Your task to perform on an android device: open chrome and create a bookmark for the current page Image 0: 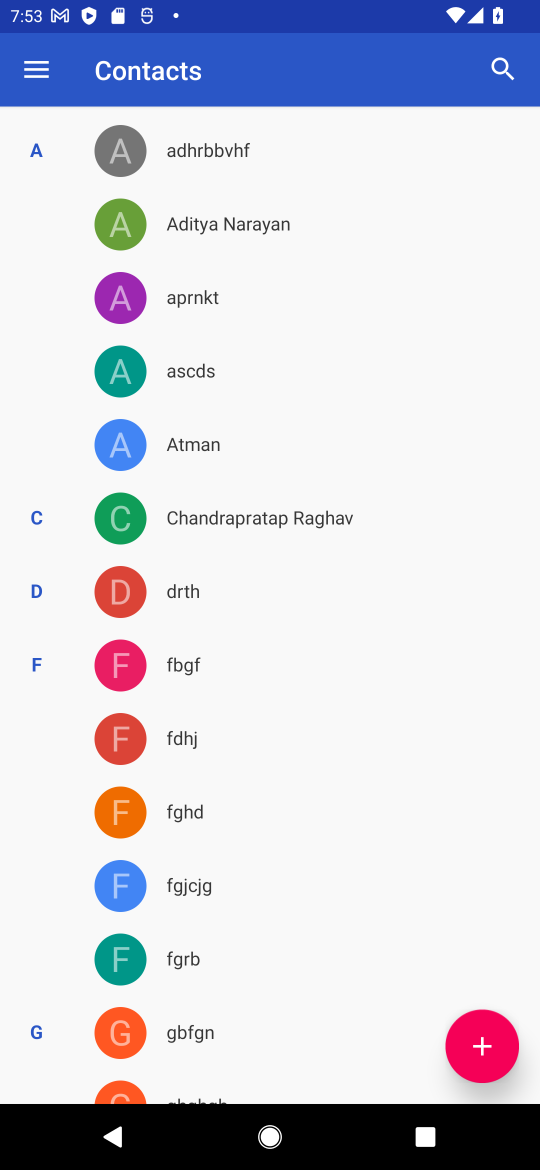
Step 0: press home button
Your task to perform on an android device: open chrome and create a bookmark for the current page Image 1: 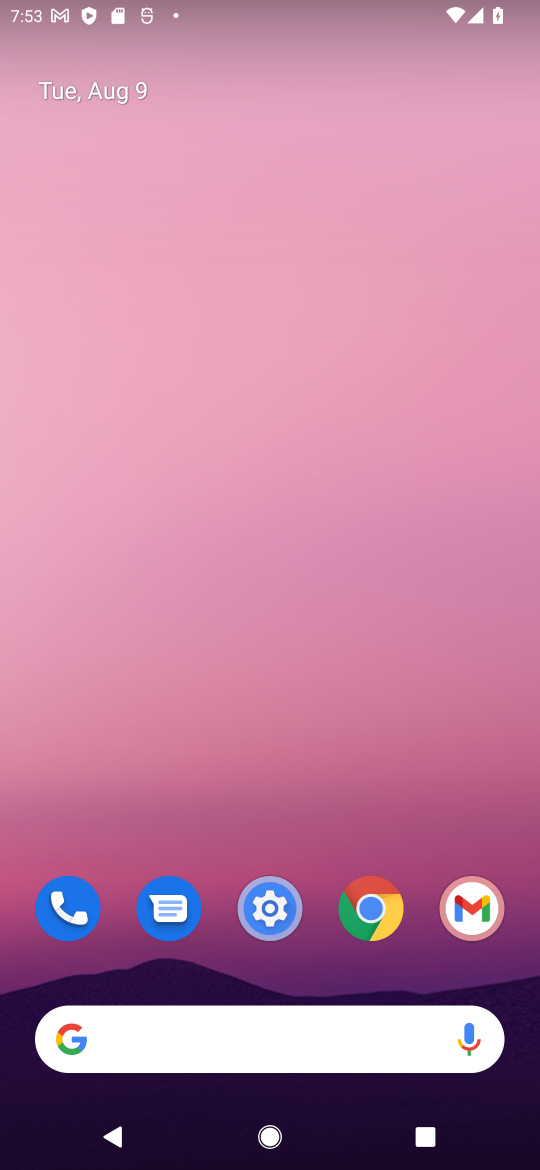
Step 1: drag from (297, 987) to (297, 173)
Your task to perform on an android device: open chrome and create a bookmark for the current page Image 2: 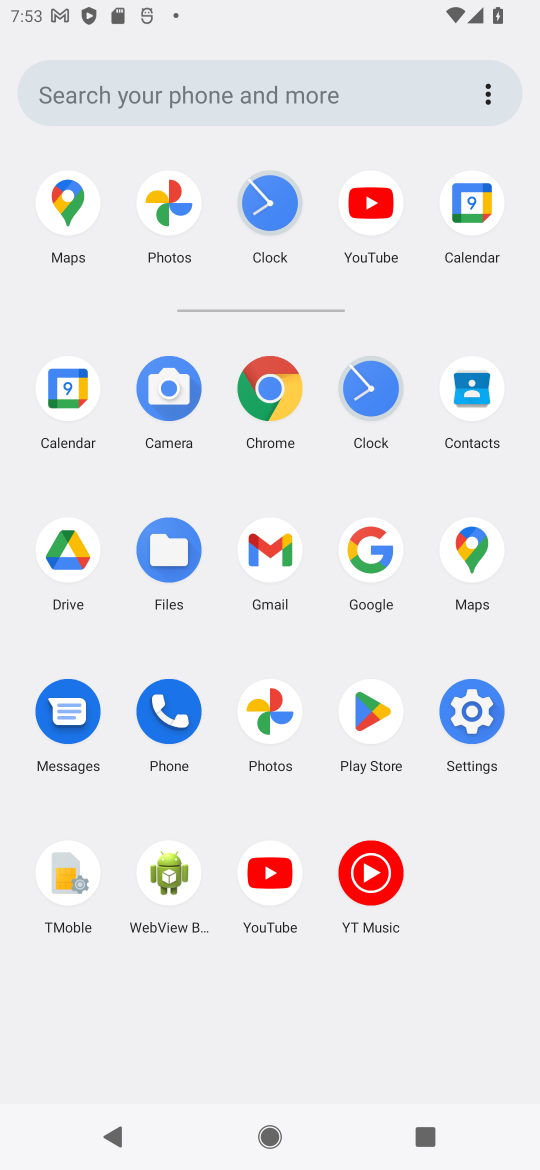
Step 2: click (267, 382)
Your task to perform on an android device: open chrome and create a bookmark for the current page Image 3: 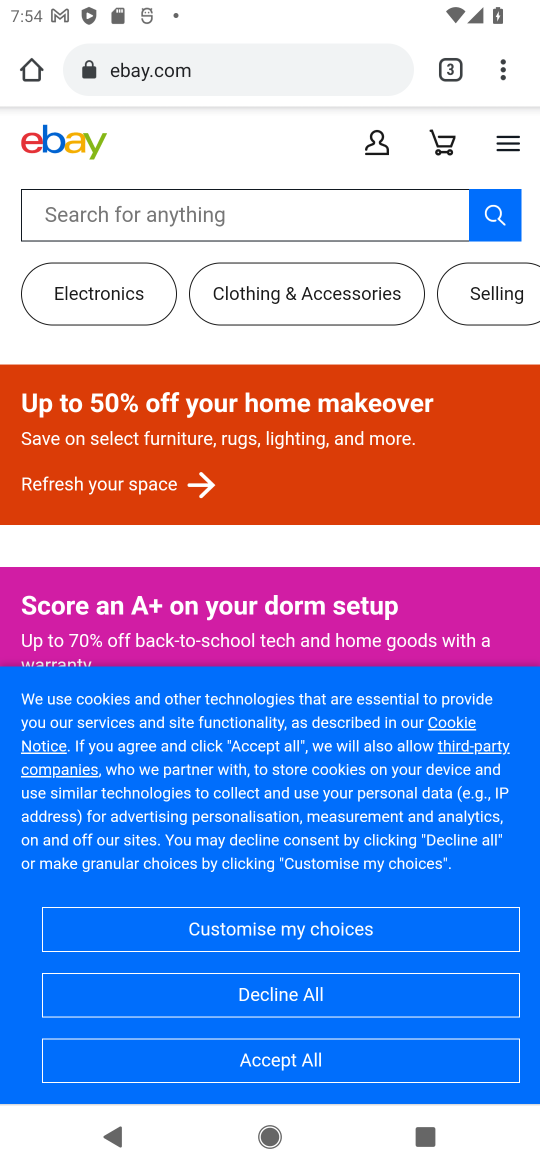
Step 3: click (504, 72)
Your task to perform on an android device: open chrome and create a bookmark for the current page Image 4: 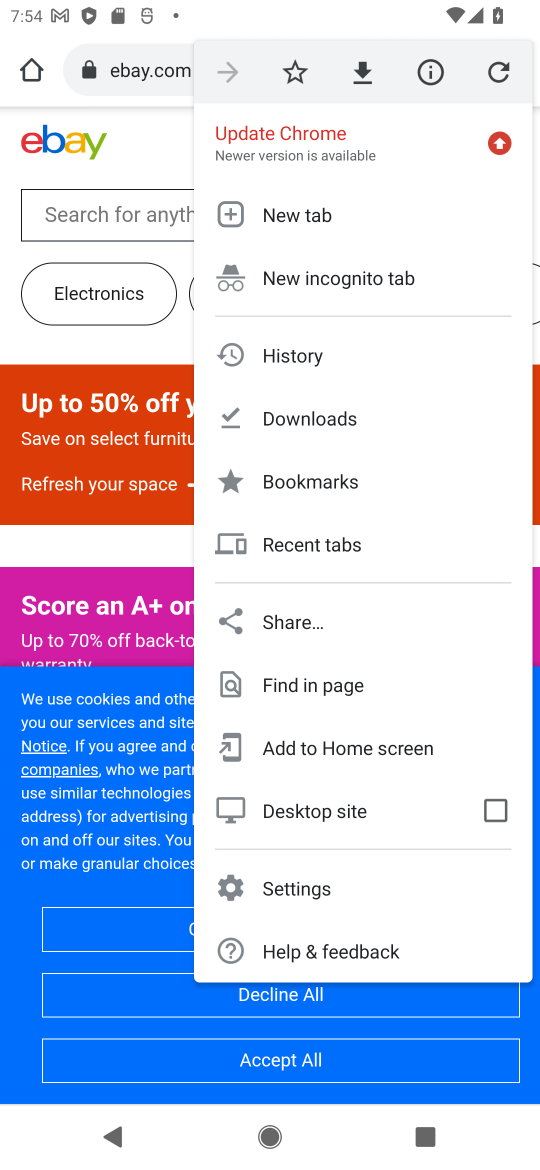
Step 4: click (297, 70)
Your task to perform on an android device: open chrome and create a bookmark for the current page Image 5: 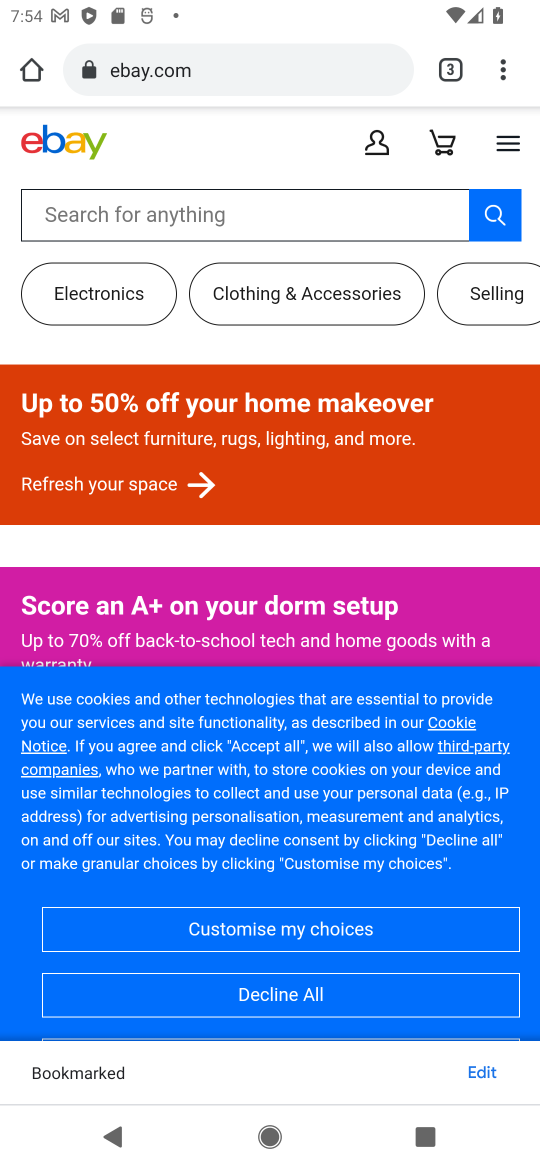
Step 5: task complete